Your task to perform on an android device: turn notification dots on Image 0: 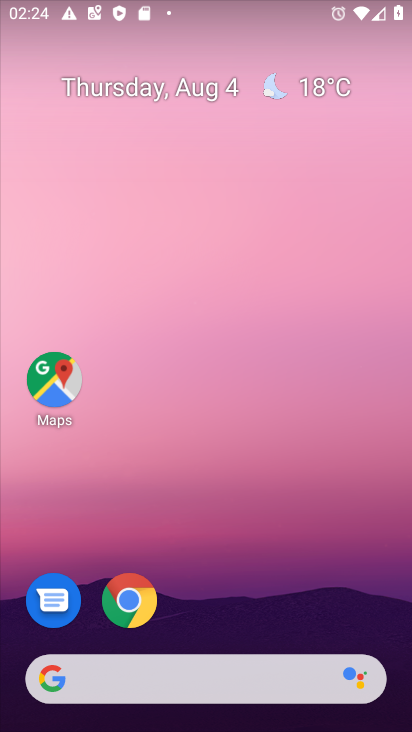
Step 0: drag from (206, 680) to (363, 64)
Your task to perform on an android device: turn notification dots on Image 1: 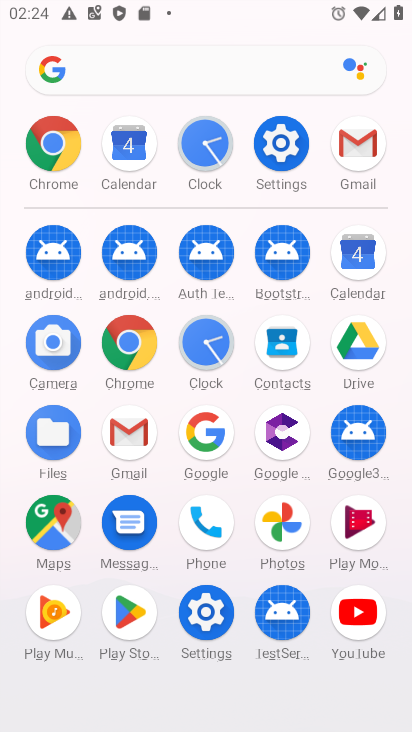
Step 1: click (292, 141)
Your task to perform on an android device: turn notification dots on Image 2: 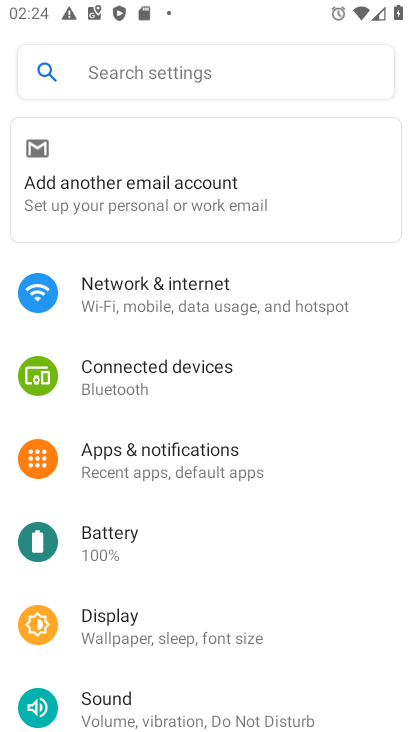
Step 2: click (188, 458)
Your task to perform on an android device: turn notification dots on Image 3: 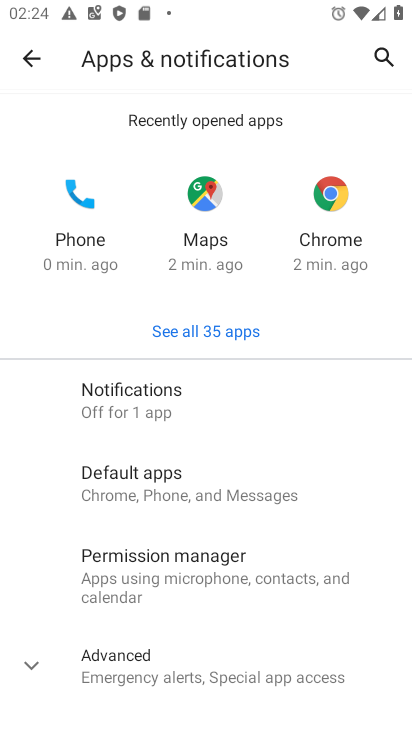
Step 3: click (150, 401)
Your task to perform on an android device: turn notification dots on Image 4: 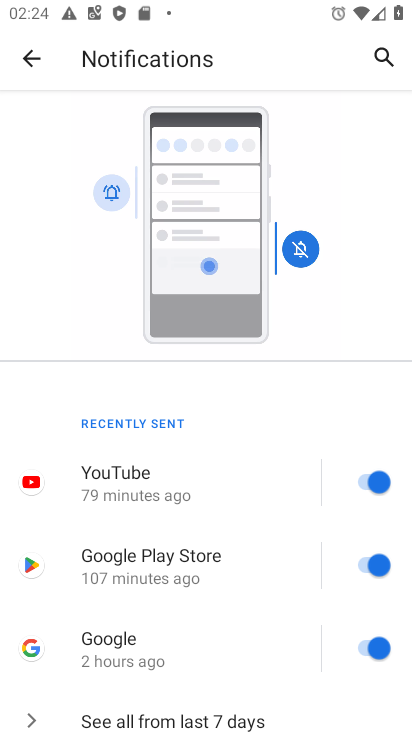
Step 4: drag from (227, 657) to (277, 224)
Your task to perform on an android device: turn notification dots on Image 5: 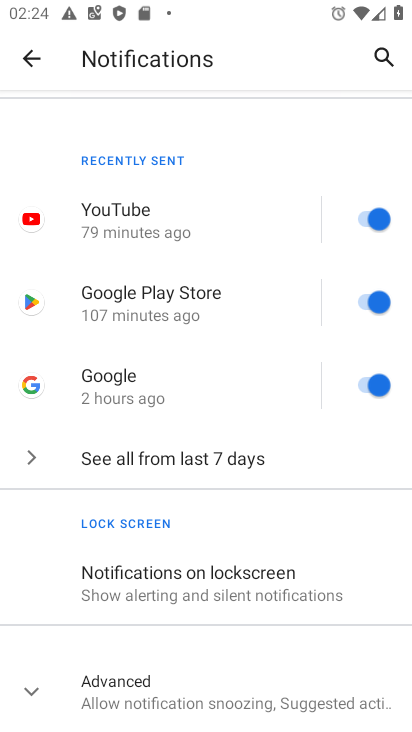
Step 5: click (166, 690)
Your task to perform on an android device: turn notification dots on Image 6: 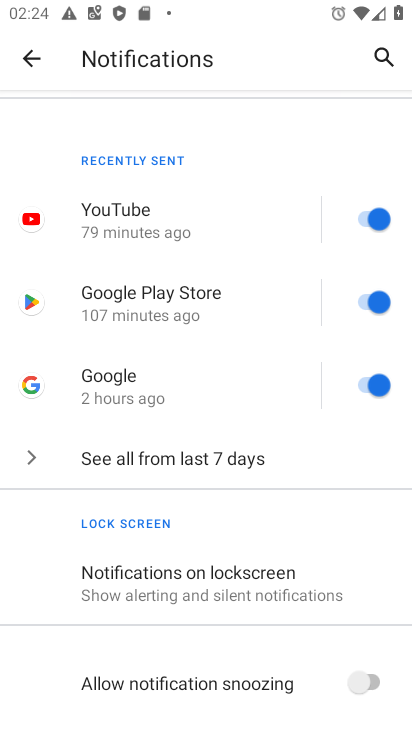
Step 6: drag from (194, 649) to (356, 176)
Your task to perform on an android device: turn notification dots on Image 7: 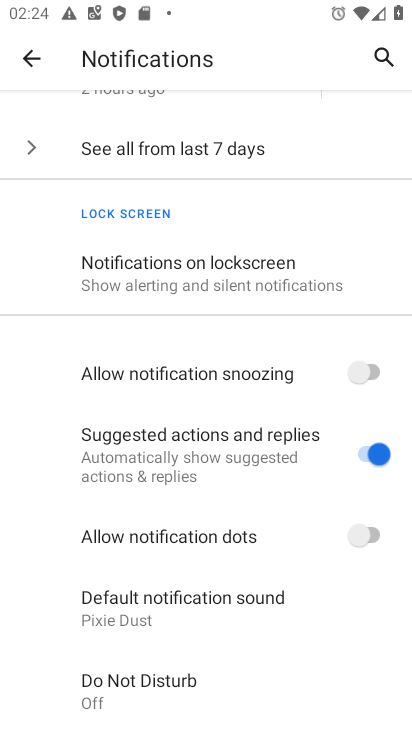
Step 7: click (376, 534)
Your task to perform on an android device: turn notification dots on Image 8: 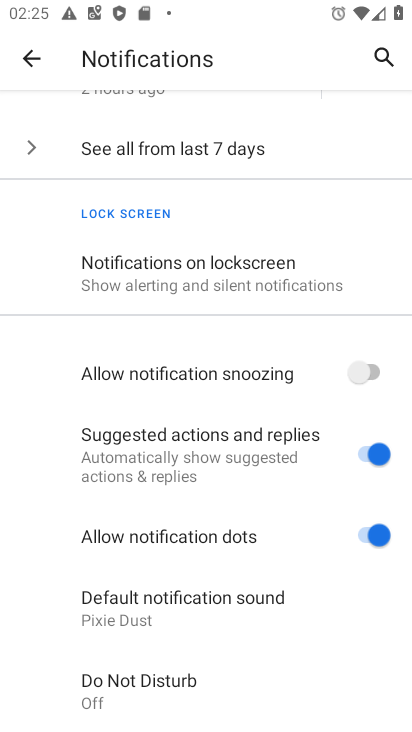
Step 8: task complete